Your task to perform on an android device: open app "Facebook Lite" (install if not already installed) and go to login screen Image 0: 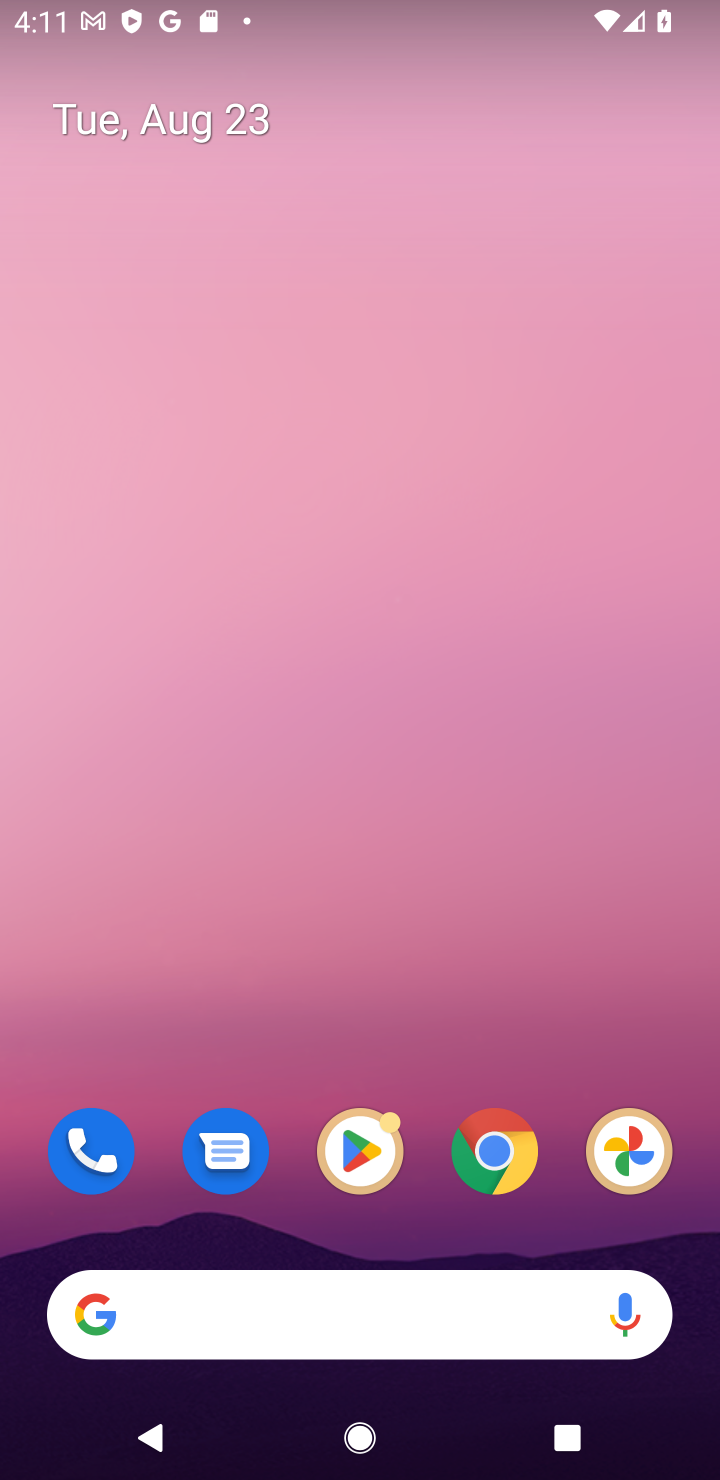
Step 0: click (358, 1138)
Your task to perform on an android device: open app "Facebook Lite" (install if not already installed) and go to login screen Image 1: 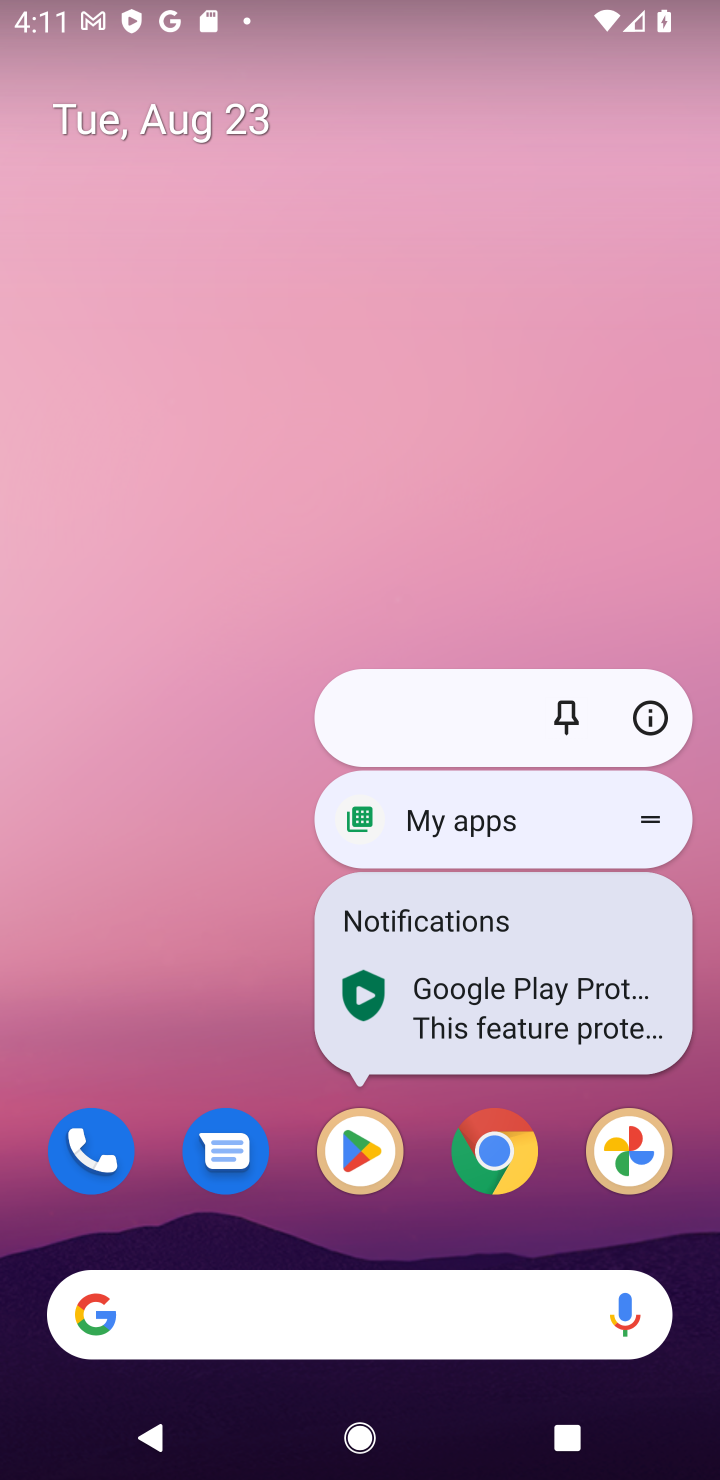
Step 1: click (275, 972)
Your task to perform on an android device: open app "Facebook Lite" (install if not already installed) and go to login screen Image 2: 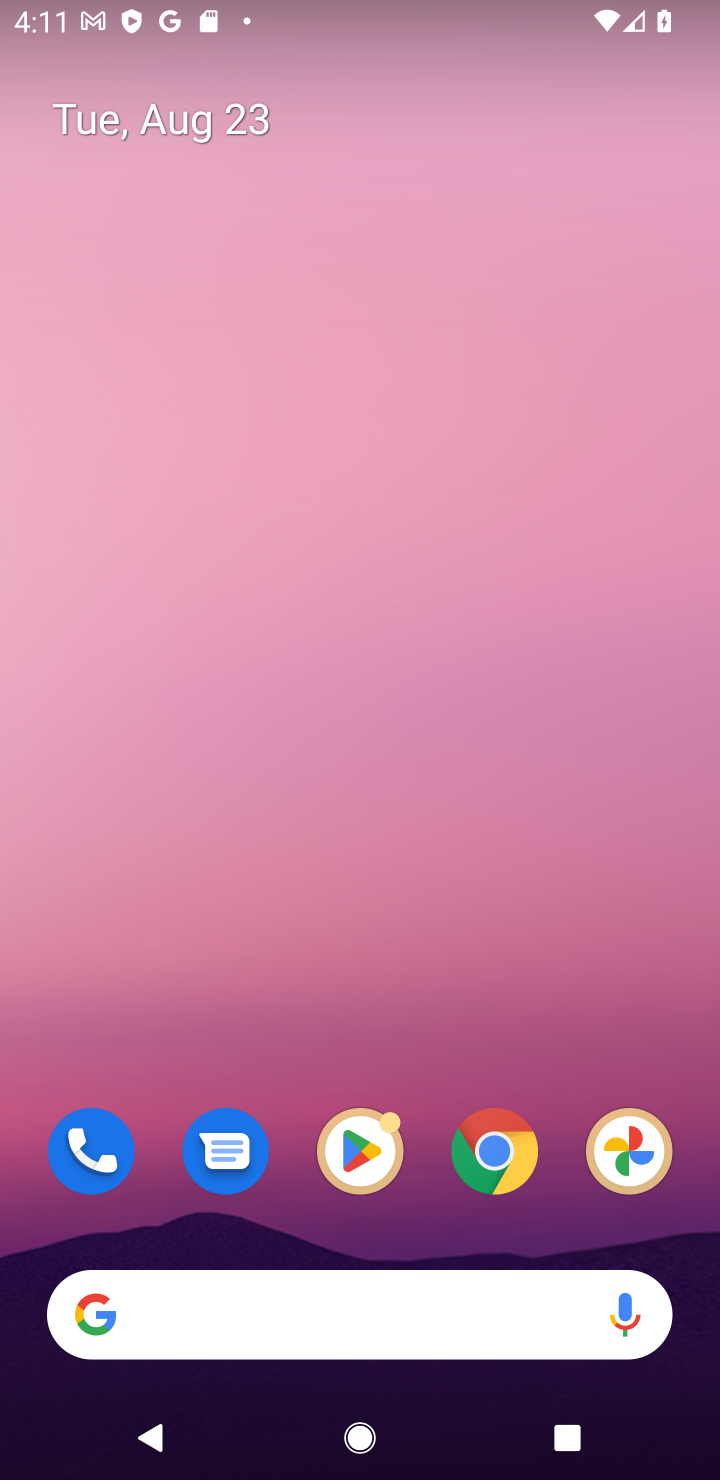
Step 2: drag from (274, 1074) to (280, 141)
Your task to perform on an android device: open app "Facebook Lite" (install if not already installed) and go to login screen Image 3: 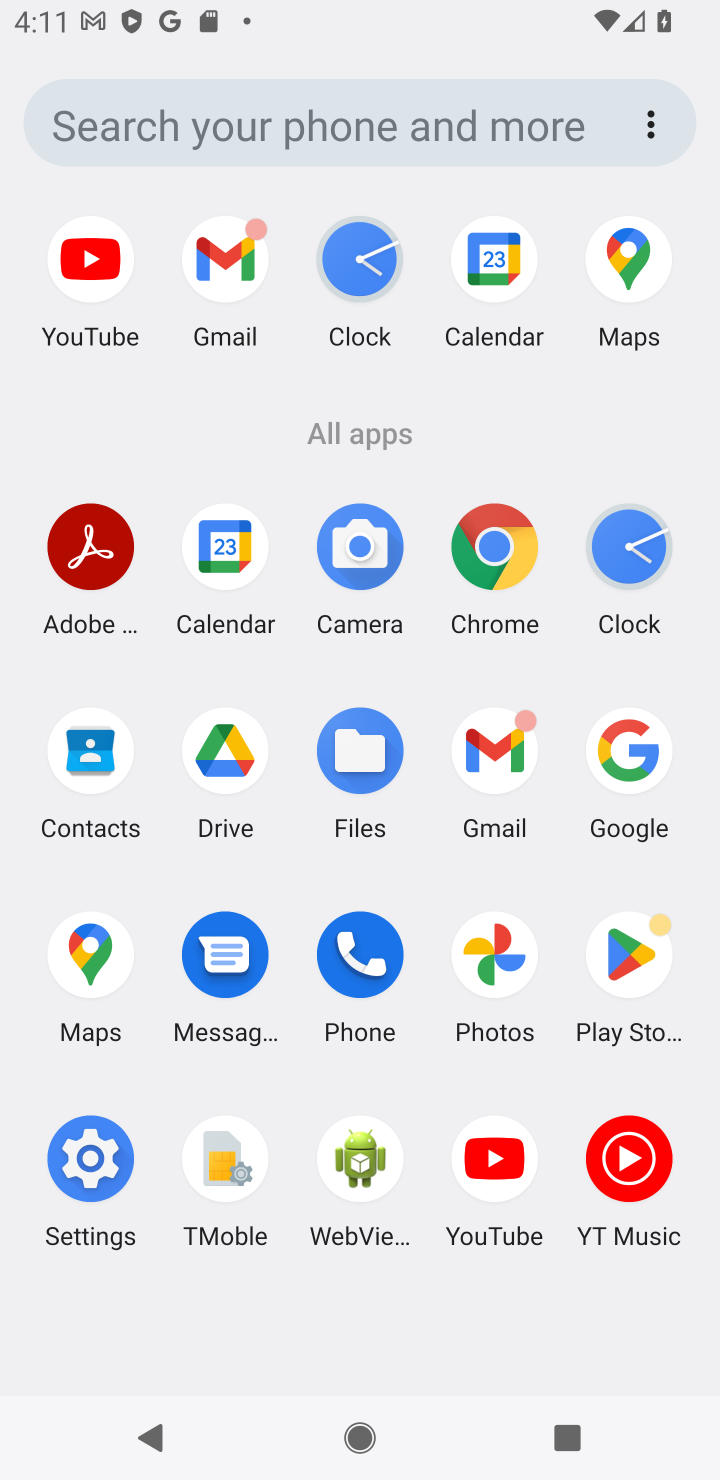
Step 3: click (633, 951)
Your task to perform on an android device: open app "Facebook Lite" (install if not already installed) and go to login screen Image 4: 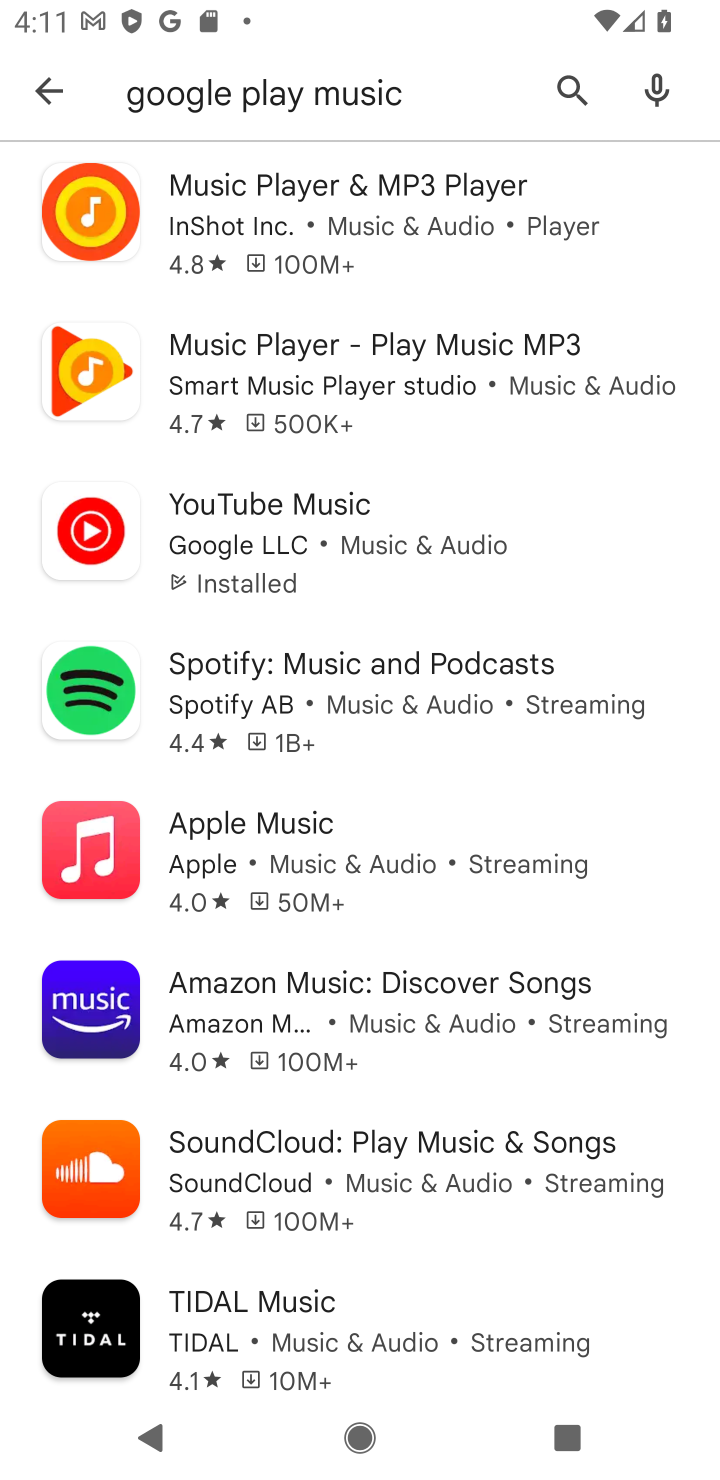
Step 4: click (560, 83)
Your task to perform on an android device: open app "Facebook Lite" (install if not already installed) and go to login screen Image 5: 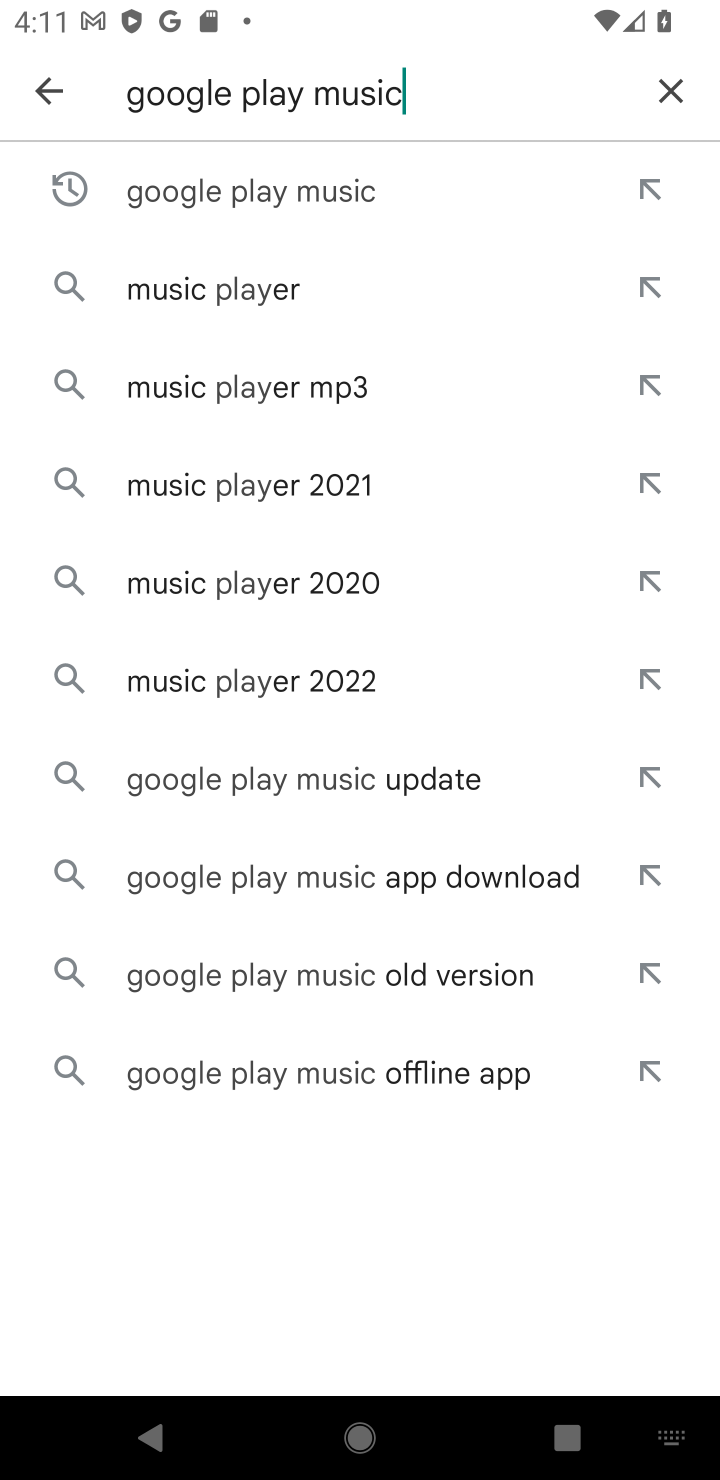
Step 5: click (670, 90)
Your task to perform on an android device: open app "Facebook Lite" (install if not already installed) and go to login screen Image 6: 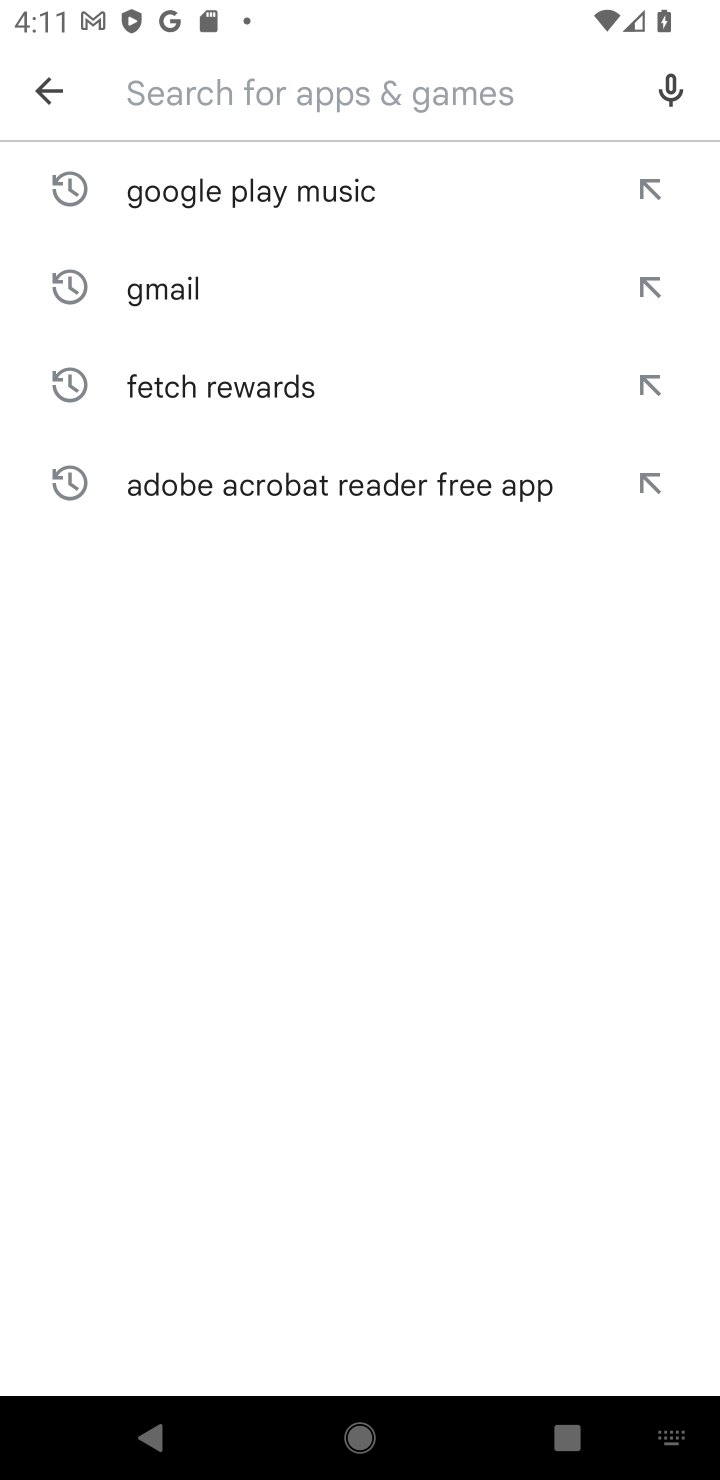
Step 6: type "Facebook Lite"
Your task to perform on an android device: open app "Facebook Lite" (install if not already installed) and go to login screen Image 7: 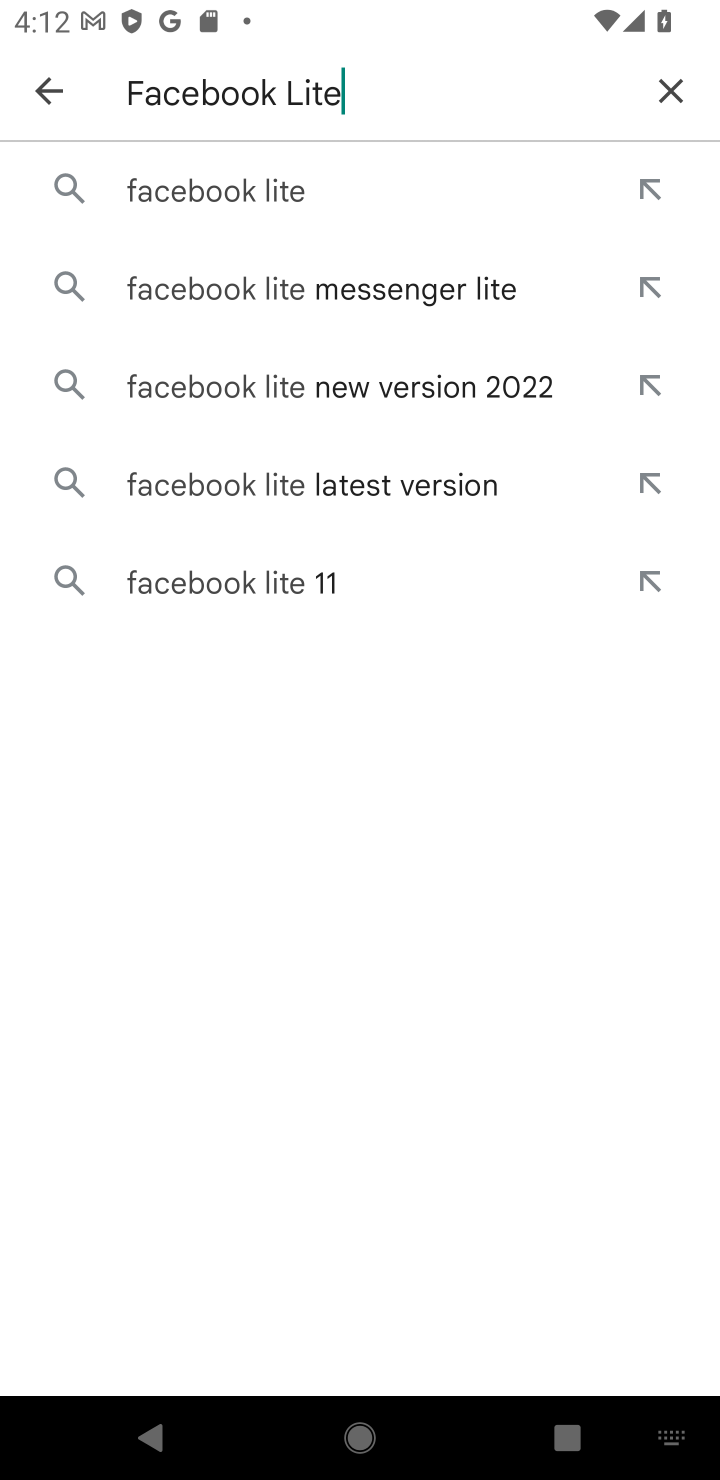
Step 7: click (333, 193)
Your task to perform on an android device: open app "Facebook Lite" (install if not already installed) and go to login screen Image 8: 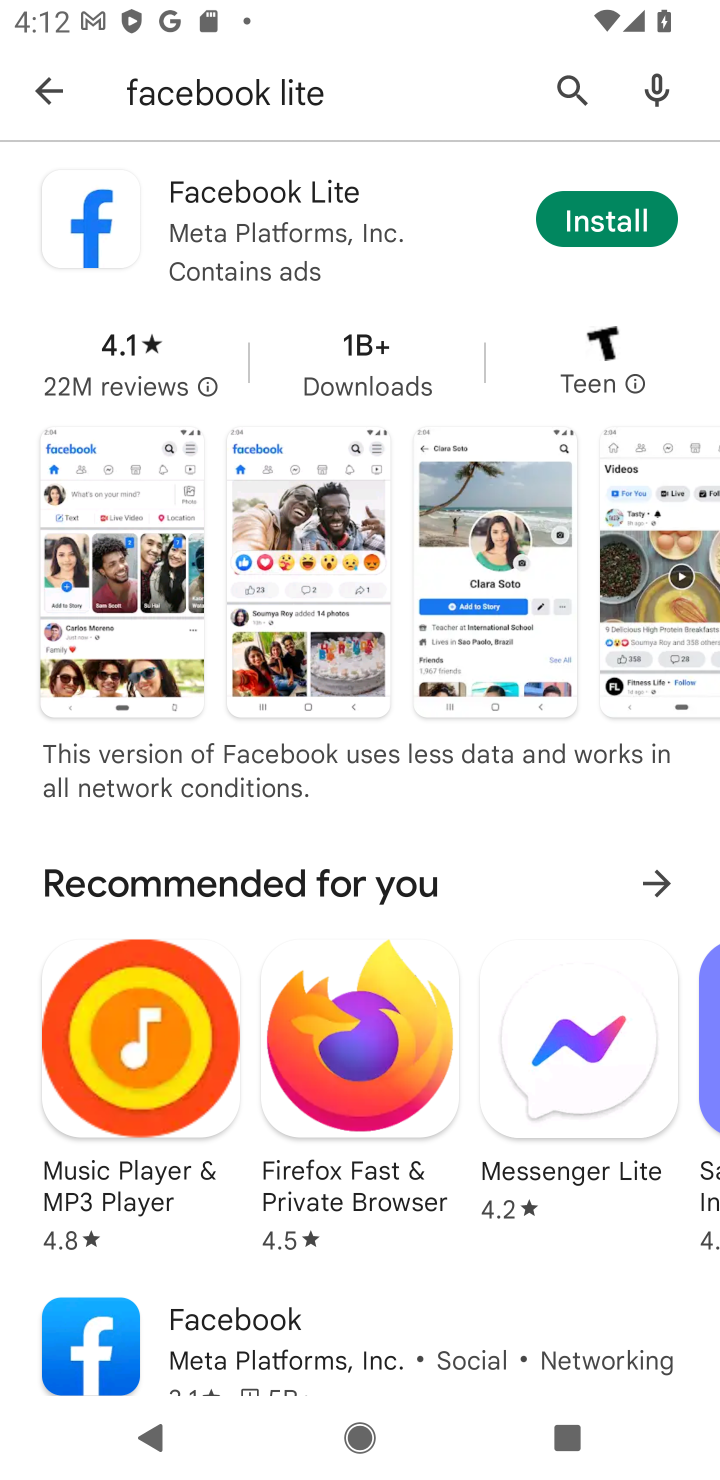
Step 8: click (625, 221)
Your task to perform on an android device: open app "Facebook Lite" (install if not already installed) and go to login screen Image 9: 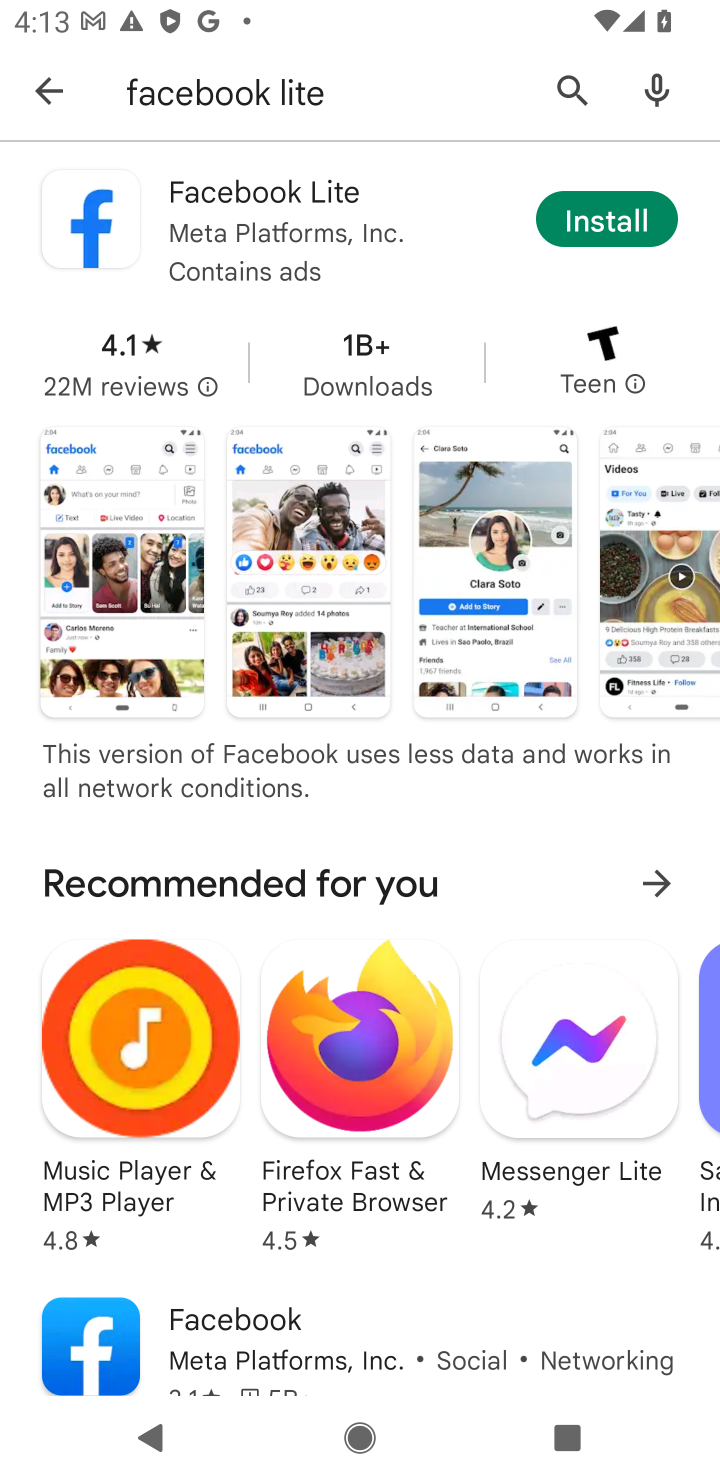
Step 9: click (626, 232)
Your task to perform on an android device: open app "Facebook Lite" (install if not already installed) and go to login screen Image 10: 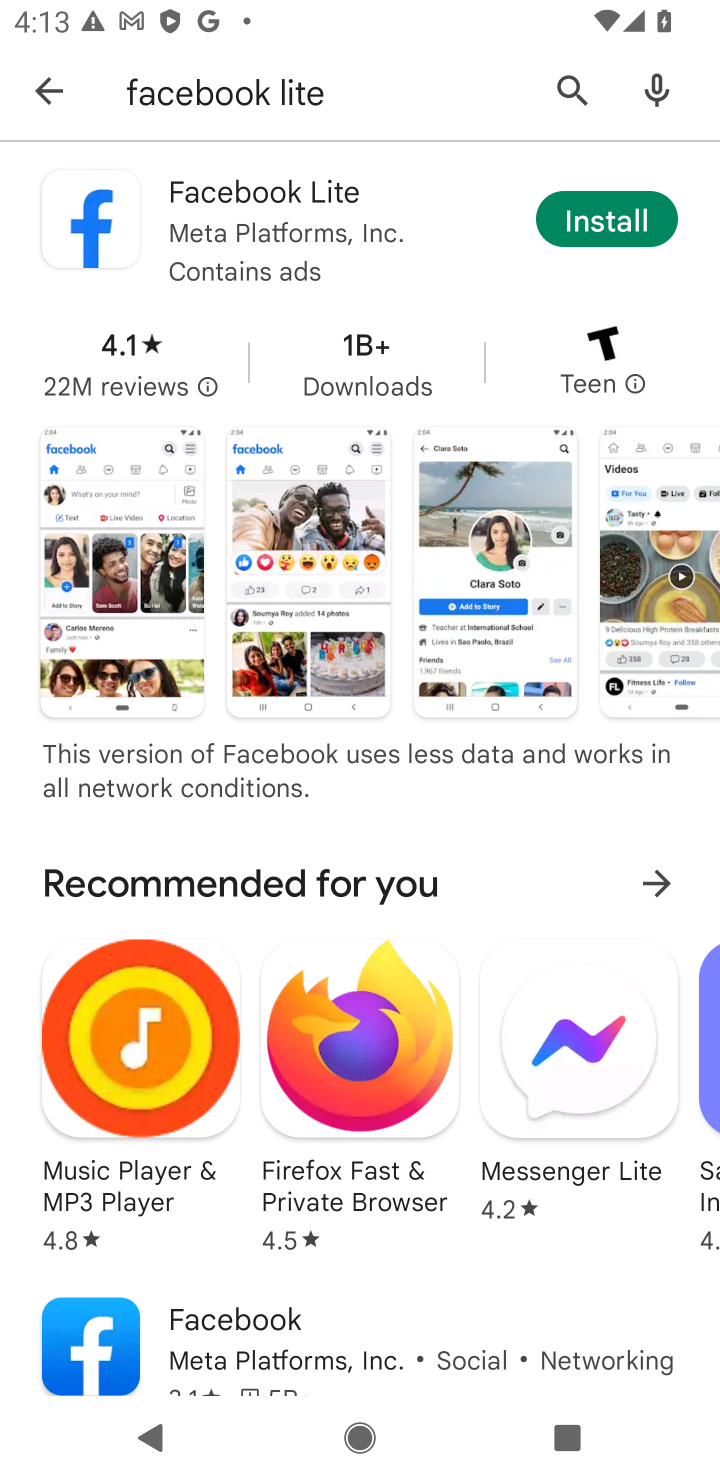
Step 10: click (622, 214)
Your task to perform on an android device: open app "Facebook Lite" (install if not already installed) and go to login screen Image 11: 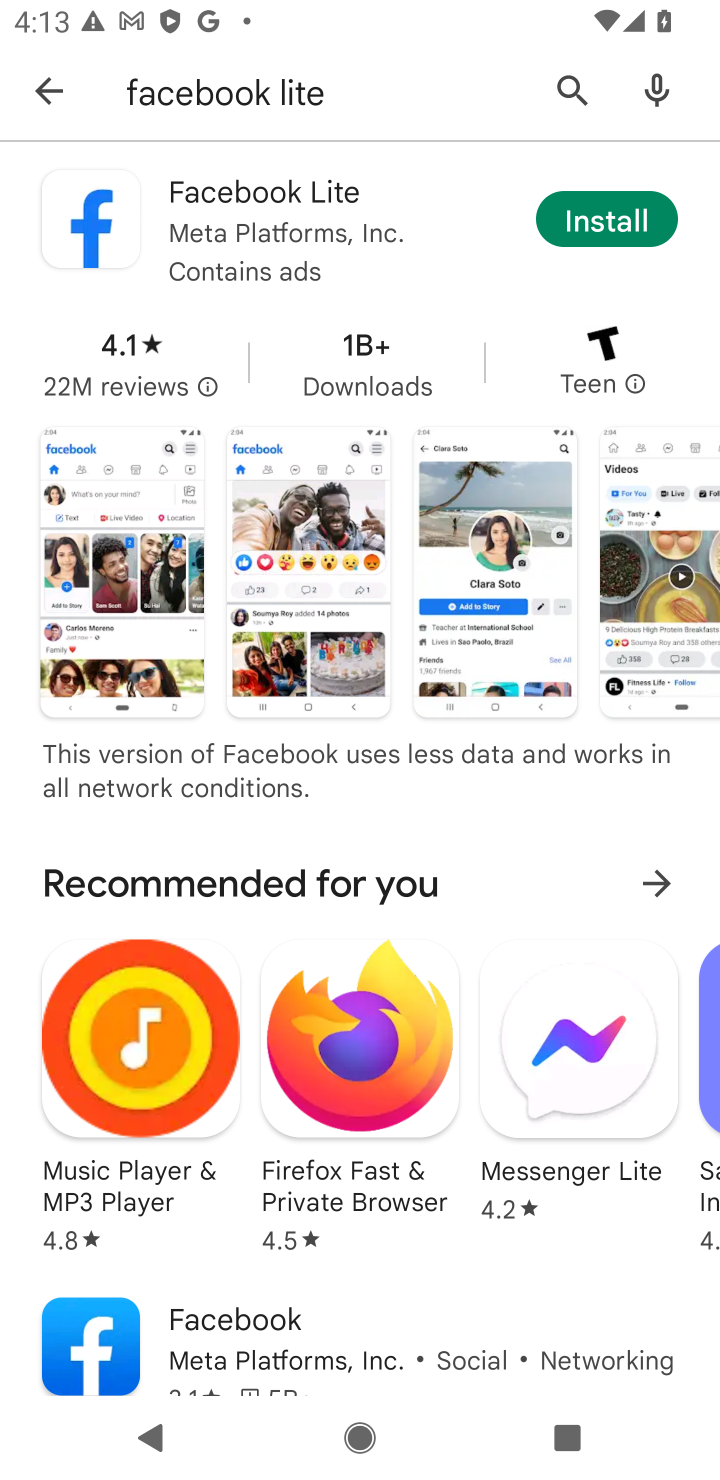
Step 11: task complete